Your task to perform on an android device: toggle pop-ups in chrome Image 0: 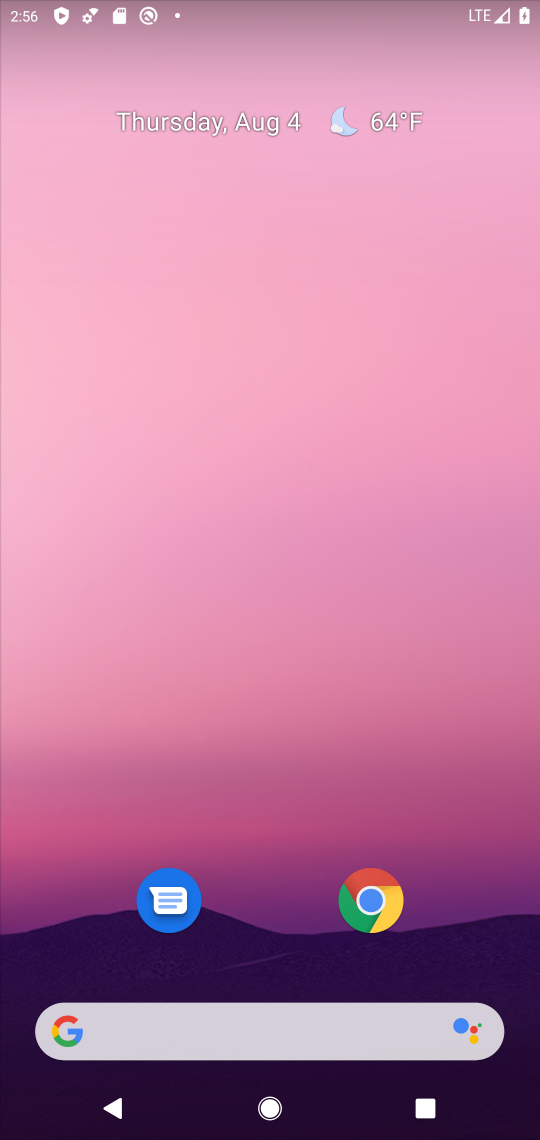
Step 0: press home button
Your task to perform on an android device: toggle pop-ups in chrome Image 1: 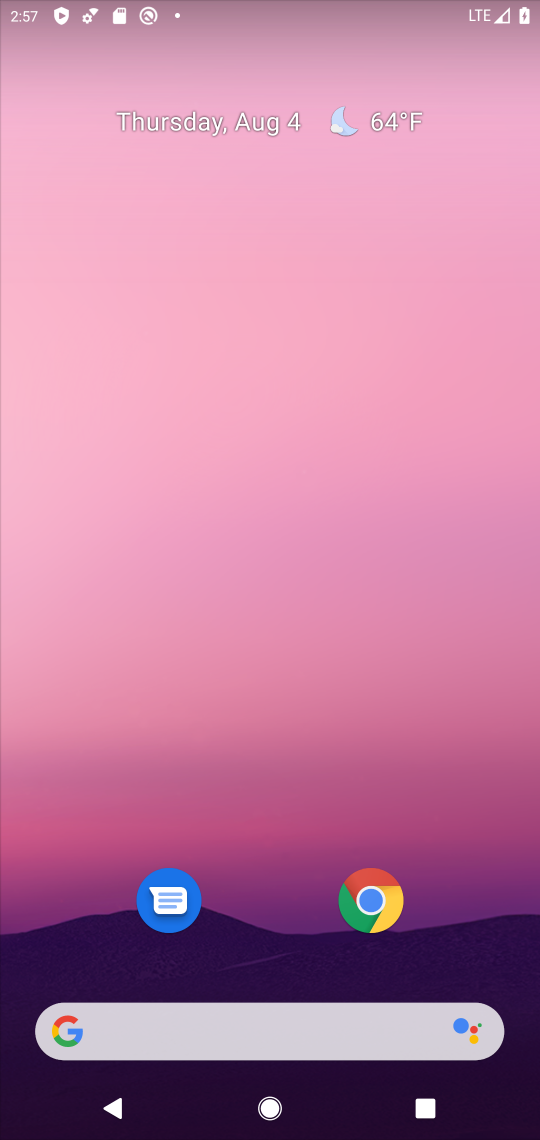
Step 1: click (397, 909)
Your task to perform on an android device: toggle pop-ups in chrome Image 2: 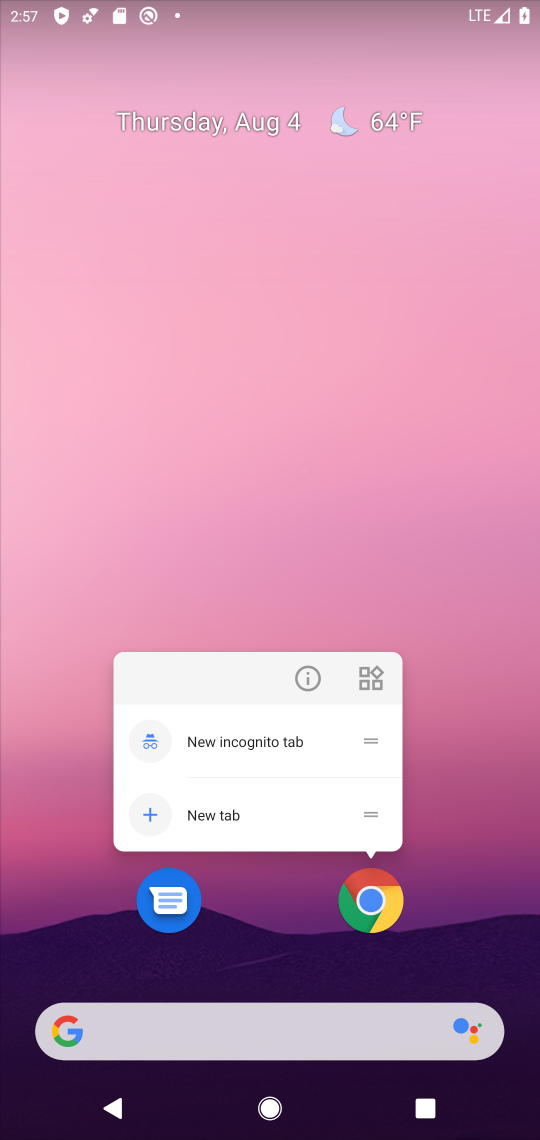
Step 2: click (386, 907)
Your task to perform on an android device: toggle pop-ups in chrome Image 3: 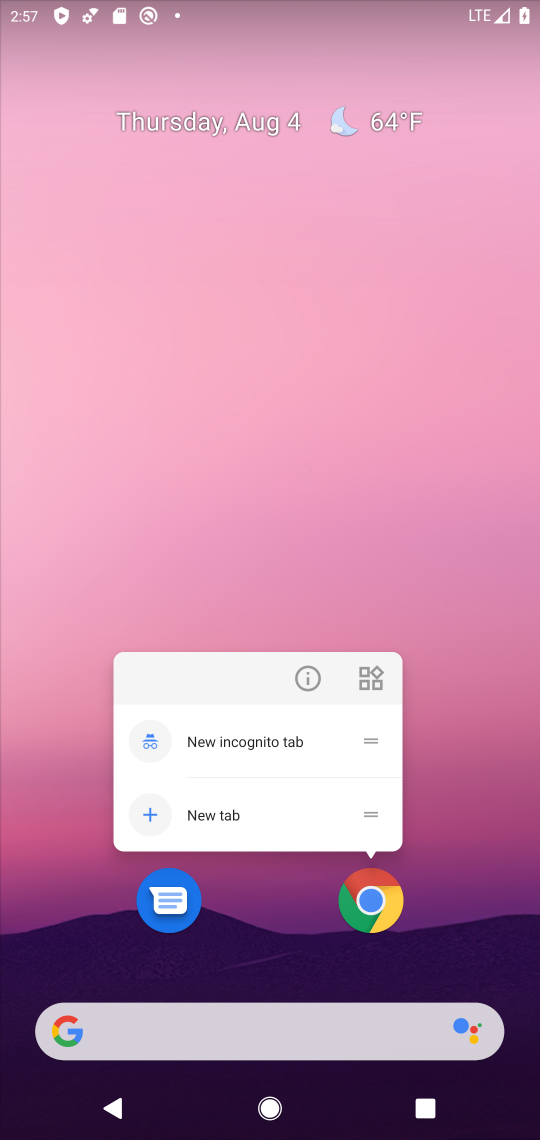
Step 3: click (386, 907)
Your task to perform on an android device: toggle pop-ups in chrome Image 4: 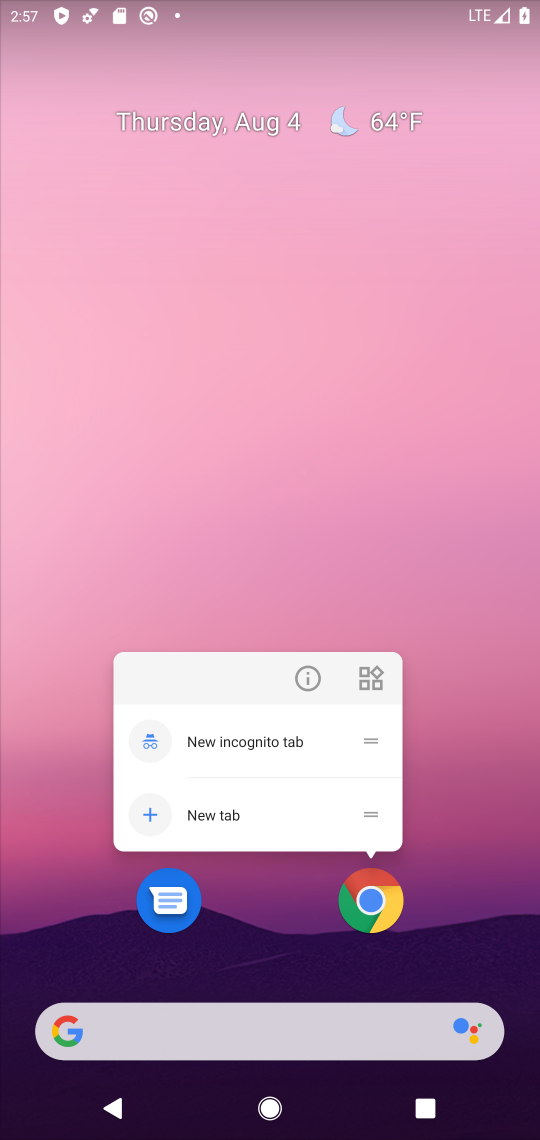
Step 4: click (386, 907)
Your task to perform on an android device: toggle pop-ups in chrome Image 5: 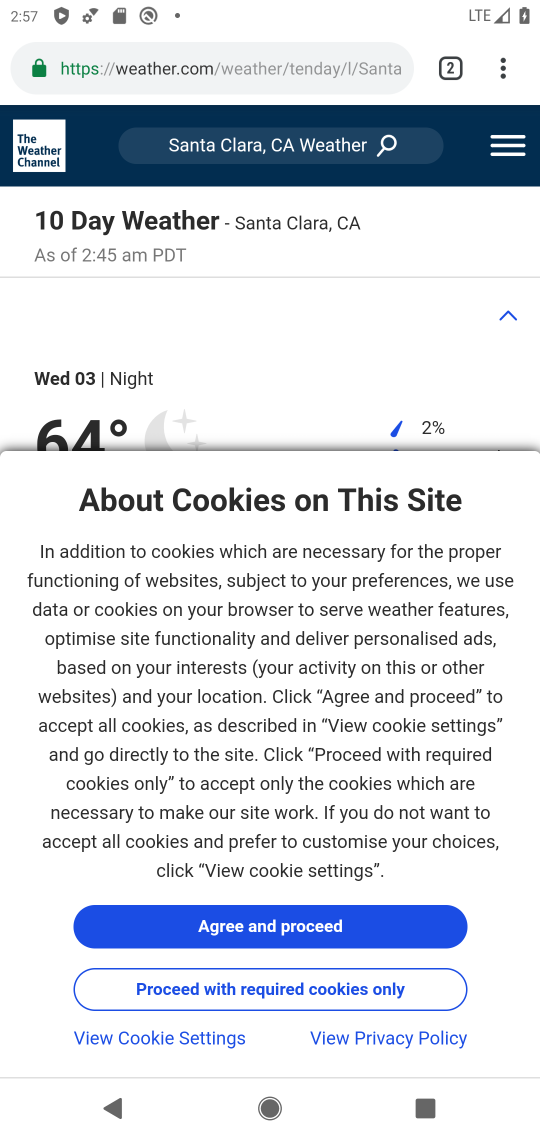
Step 5: click (520, 67)
Your task to perform on an android device: toggle pop-ups in chrome Image 6: 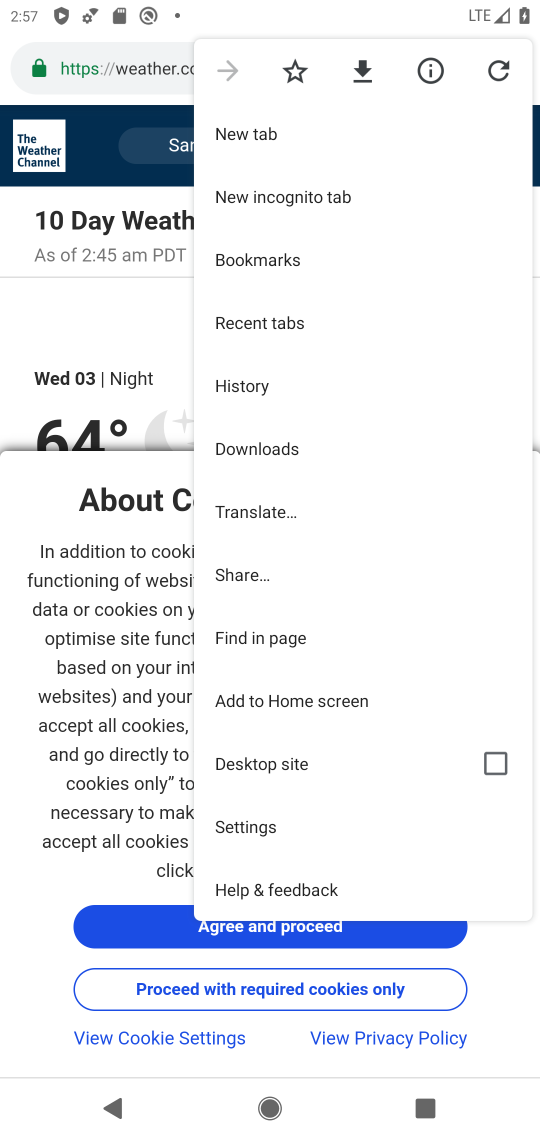
Step 6: click (288, 827)
Your task to perform on an android device: toggle pop-ups in chrome Image 7: 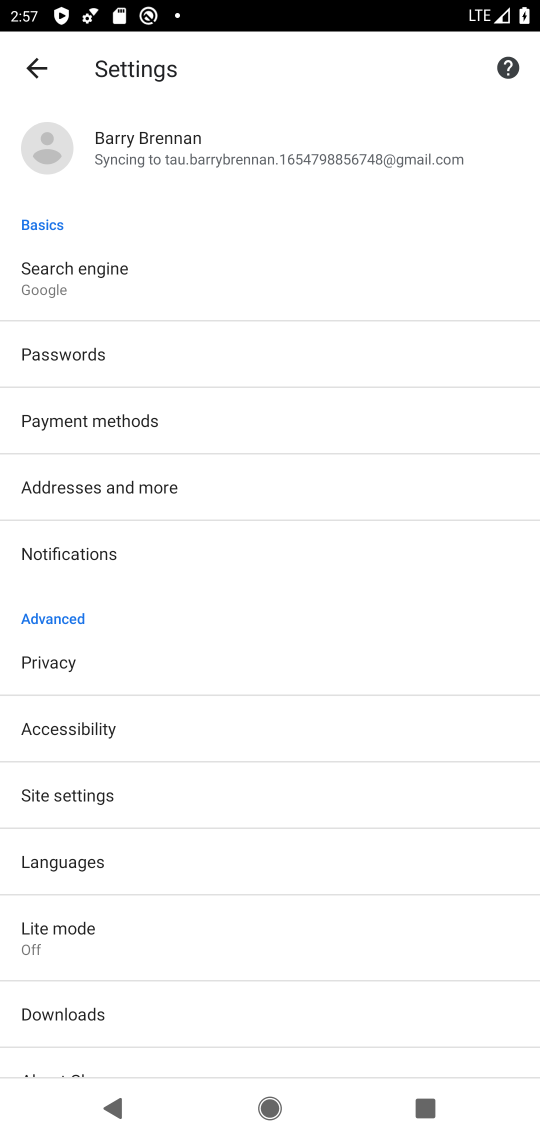
Step 7: click (245, 812)
Your task to perform on an android device: toggle pop-ups in chrome Image 8: 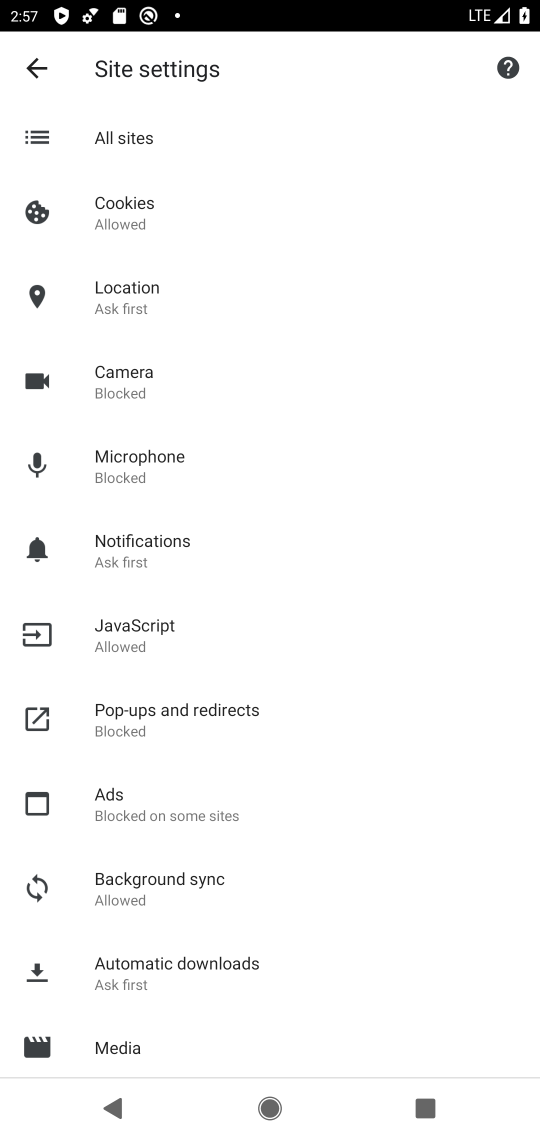
Step 8: click (238, 708)
Your task to perform on an android device: toggle pop-ups in chrome Image 9: 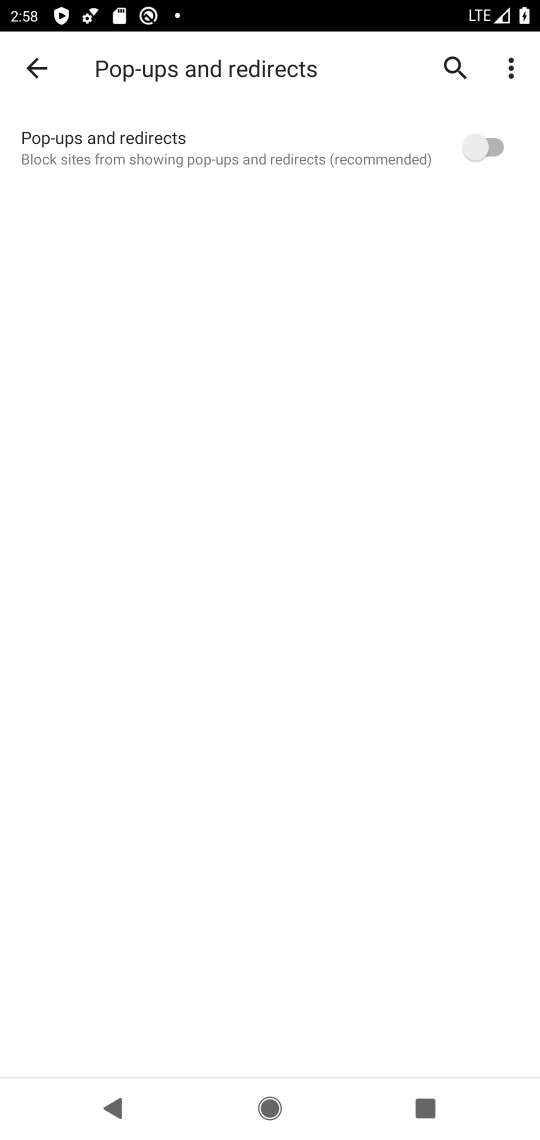
Step 9: click (490, 167)
Your task to perform on an android device: toggle pop-ups in chrome Image 10: 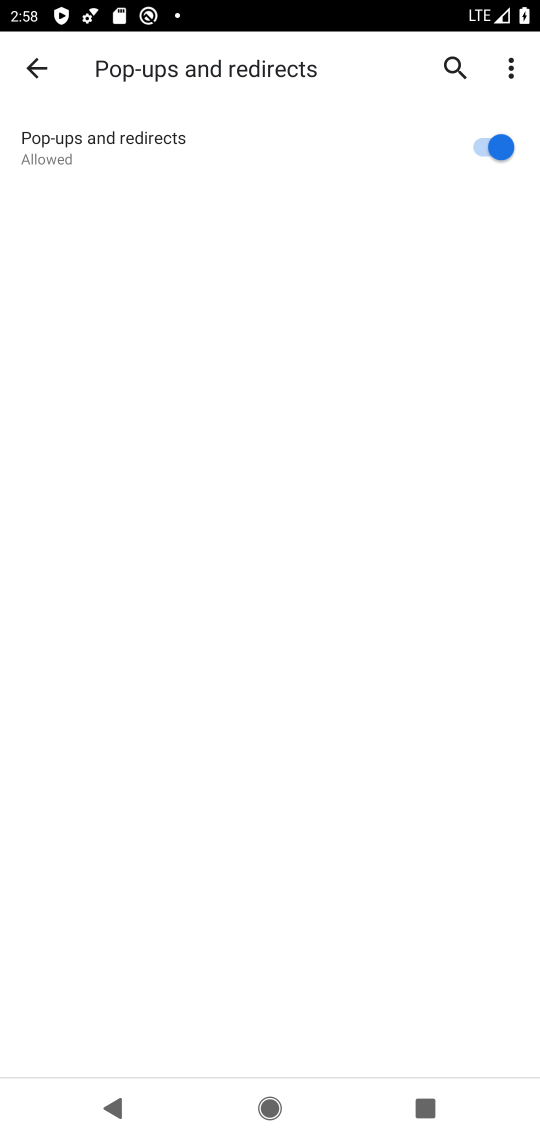
Step 10: task complete